Your task to perform on an android device: Go to Android settings Image 0: 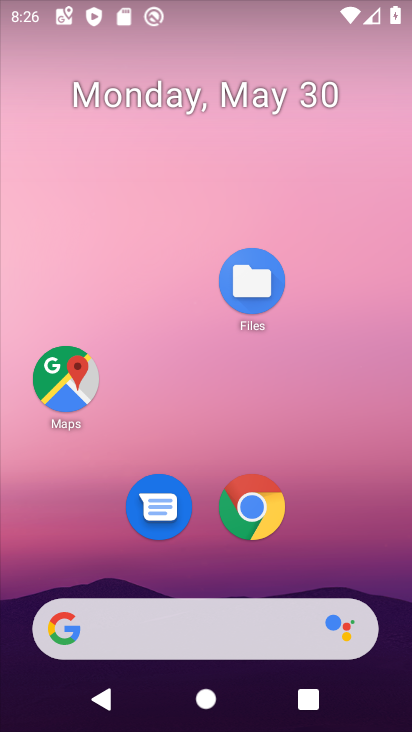
Step 0: drag from (197, 566) to (207, 224)
Your task to perform on an android device: Go to Android settings Image 1: 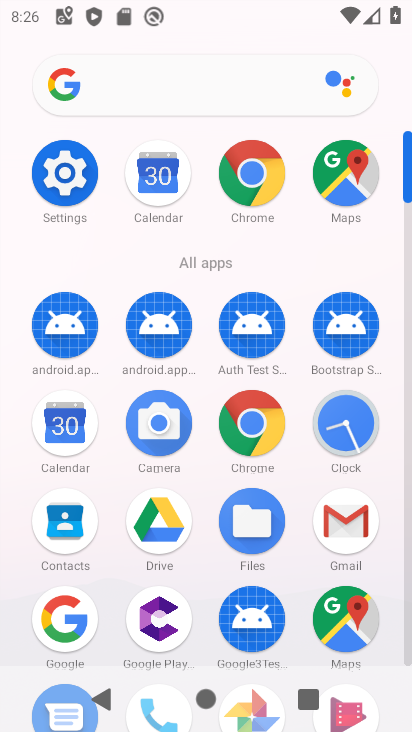
Step 1: click (72, 178)
Your task to perform on an android device: Go to Android settings Image 2: 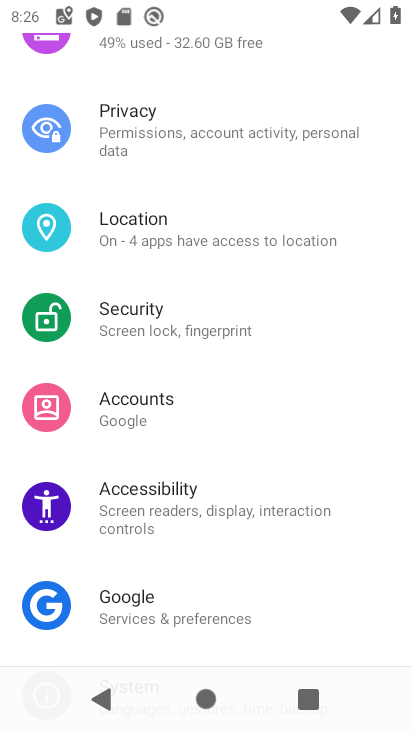
Step 2: drag from (206, 542) to (227, 291)
Your task to perform on an android device: Go to Android settings Image 3: 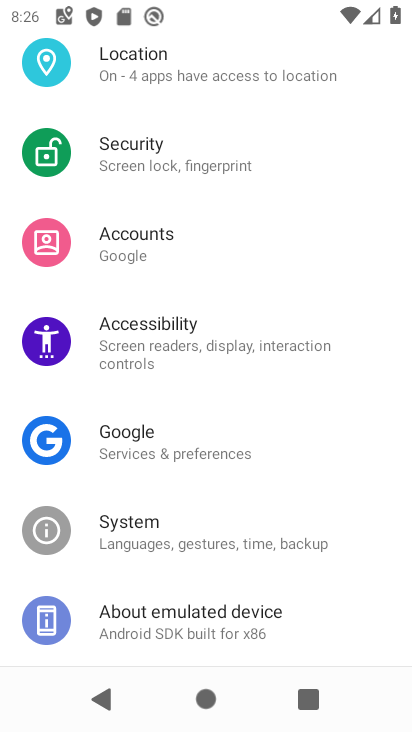
Step 3: click (188, 625)
Your task to perform on an android device: Go to Android settings Image 4: 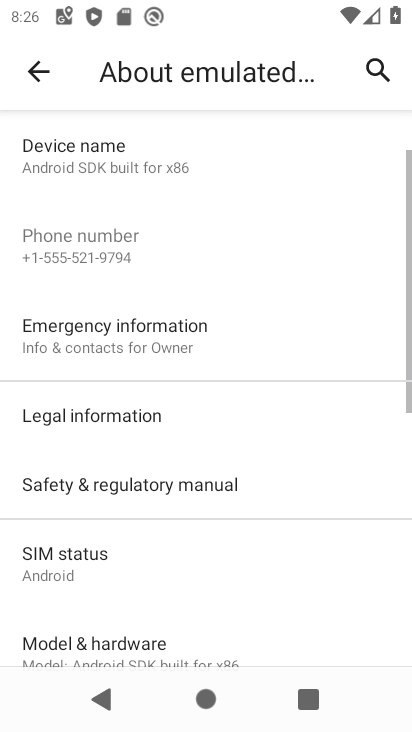
Step 4: drag from (215, 474) to (278, 110)
Your task to perform on an android device: Go to Android settings Image 5: 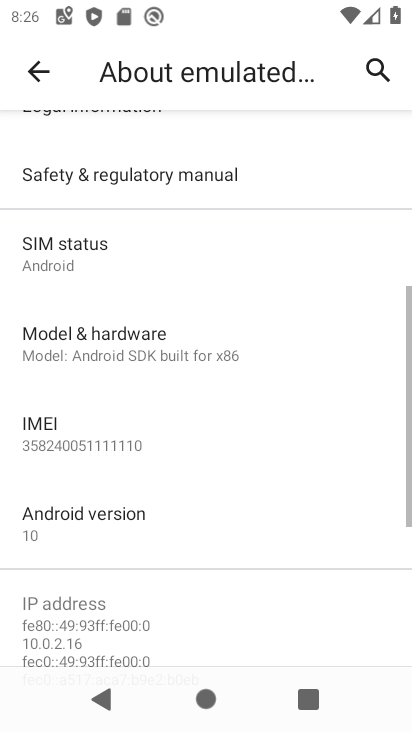
Step 5: click (182, 524)
Your task to perform on an android device: Go to Android settings Image 6: 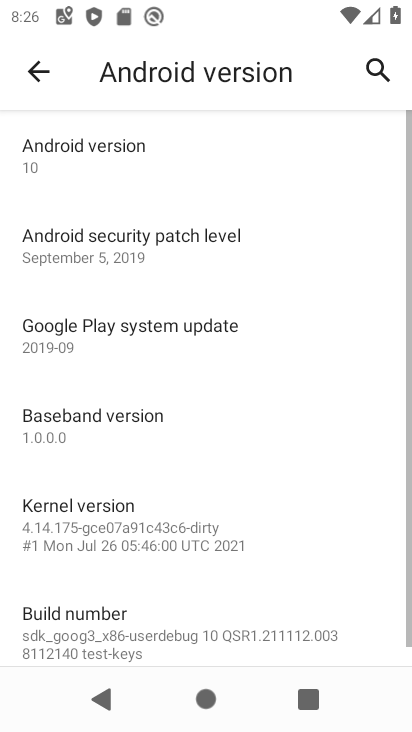
Step 6: task complete